Your task to perform on an android device: set the stopwatch Image 0: 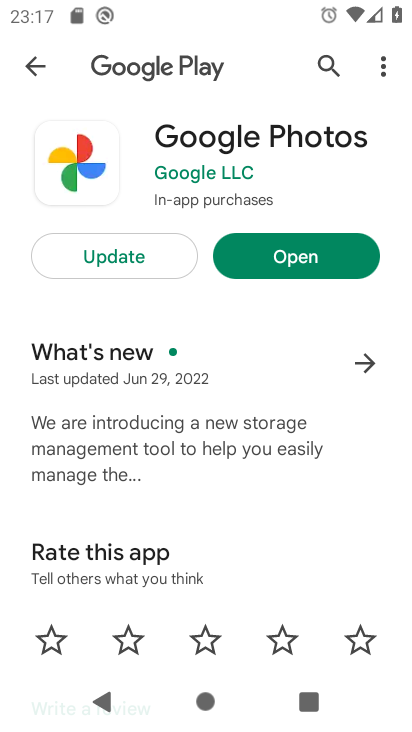
Step 0: press home button
Your task to perform on an android device: set the stopwatch Image 1: 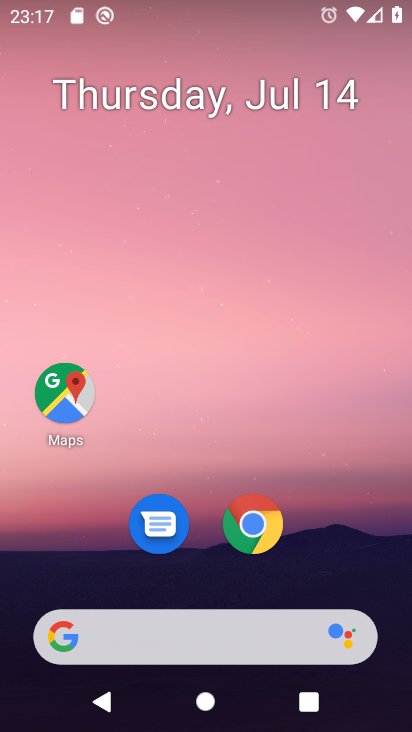
Step 1: drag from (324, 464) to (341, 21)
Your task to perform on an android device: set the stopwatch Image 2: 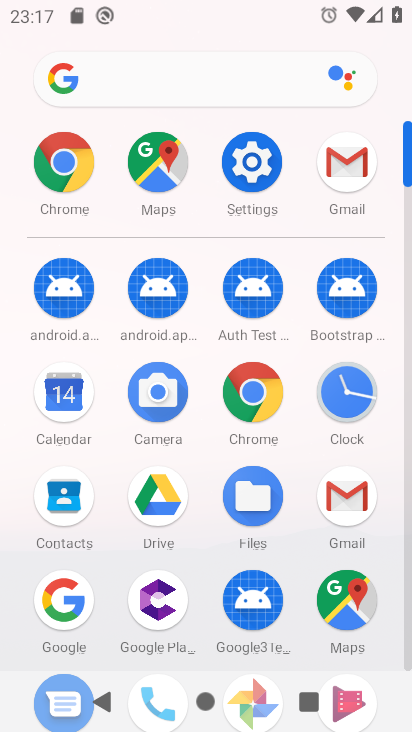
Step 2: click (355, 394)
Your task to perform on an android device: set the stopwatch Image 3: 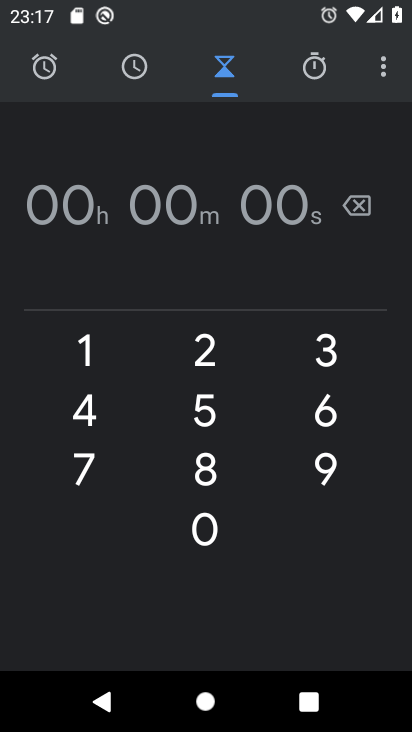
Step 3: click (321, 76)
Your task to perform on an android device: set the stopwatch Image 4: 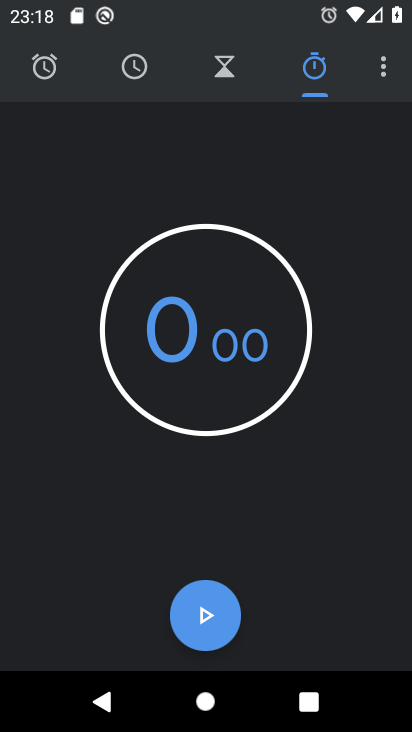
Step 4: task complete